Your task to perform on an android device: Open Google Chrome Image 0: 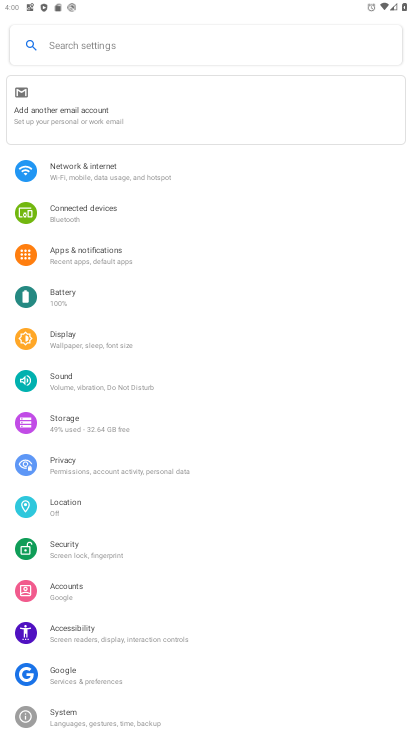
Step 0: press home button
Your task to perform on an android device: Open Google Chrome Image 1: 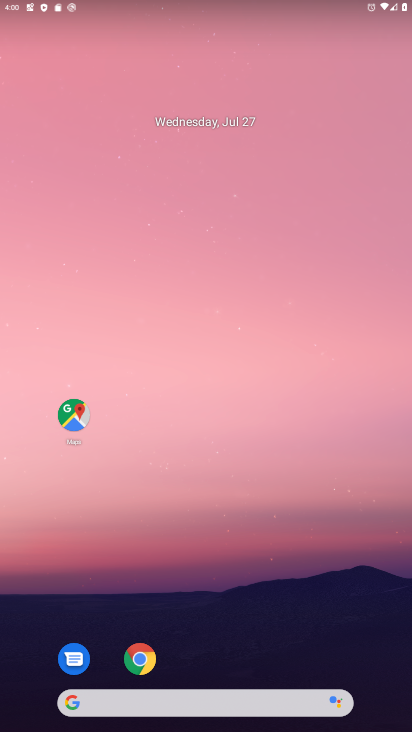
Step 1: click (134, 664)
Your task to perform on an android device: Open Google Chrome Image 2: 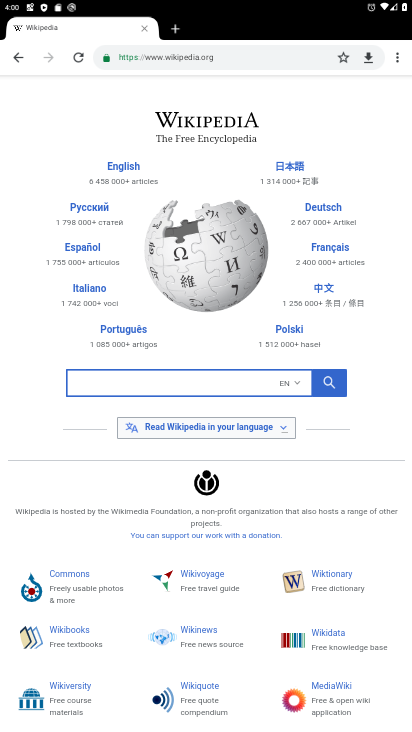
Step 2: task complete